Your task to perform on an android device: View the shopping cart on newegg.com. Add "razer blackwidow" to the cart on newegg.com Image 0: 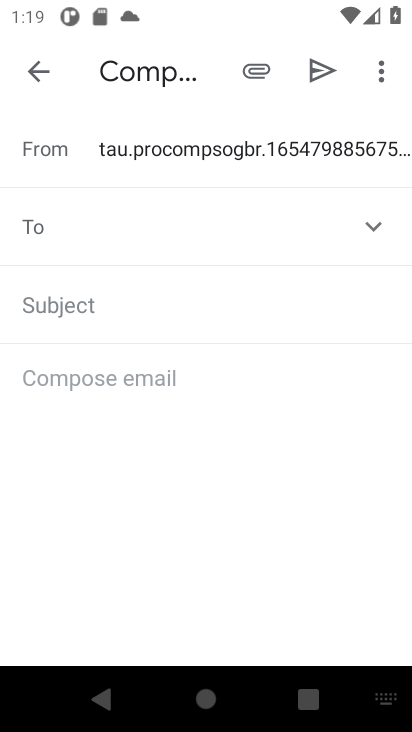
Step 0: press home button
Your task to perform on an android device: View the shopping cart on newegg.com. Add "razer blackwidow" to the cart on newegg.com Image 1: 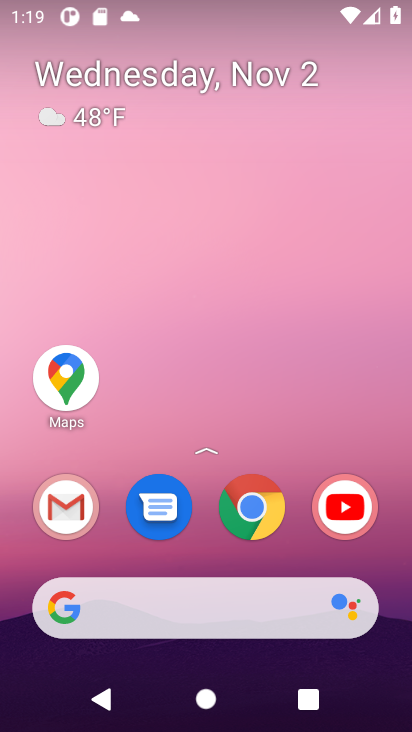
Step 1: click (142, 613)
Your task to perform on an android device: View the shopping cart on newegg.com. Add "razer blackwidow" to the cart on newegg.com Image 2: 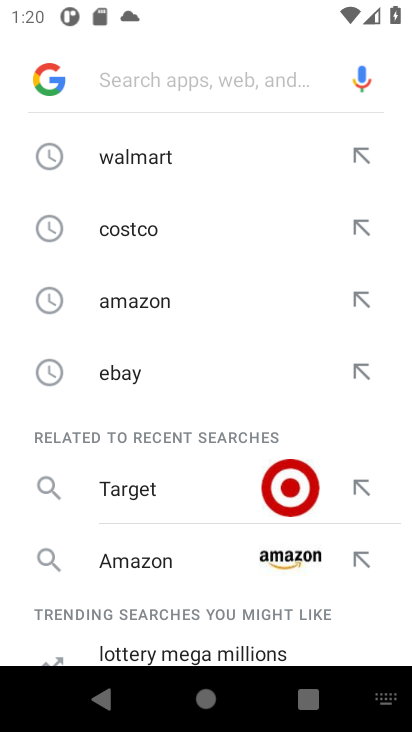
Step 2: type "newegg.com"
Your task to perform on an android device: View the shopping cart on newegg.com. Add "razer blackwidow" to the cart on newegg.com Image 3: 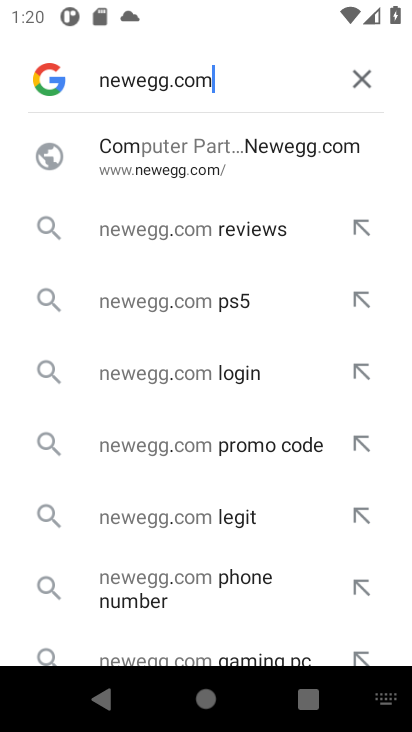
Step 3: click (183, 157)
Your task to perform on an android device: View the shopping cart on newegg.com. Add "razer blackwidow" to the cart on newegg.com Image 4: 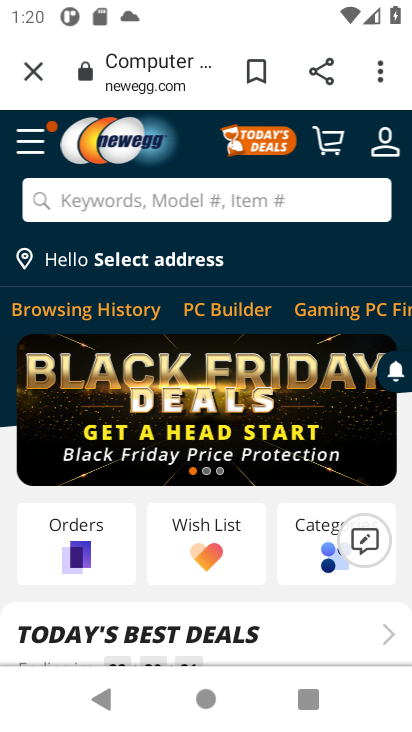
Step 4: click (193, 190)
Your task to perform on an android device: View the shopping cart on newegg.com. Add "razer blackwidow" to the cart on newegg.com Image 5: 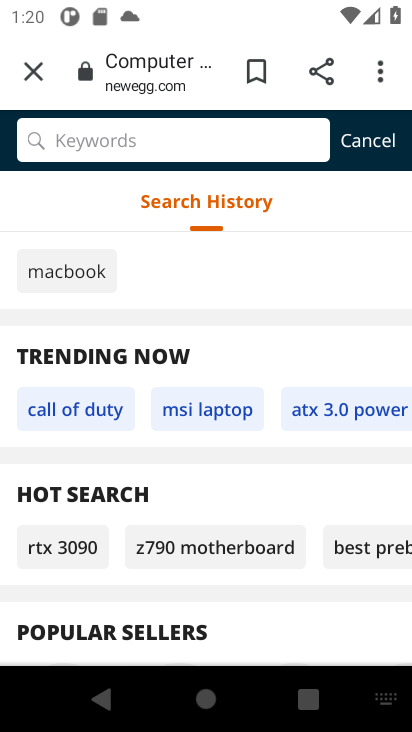
Step 5: type "razer blackwidow"
Your task to perform on an android device: View the shopping cart on newegg.com. Add "razer blackwidow" to the cart on newegg.com Image 6: 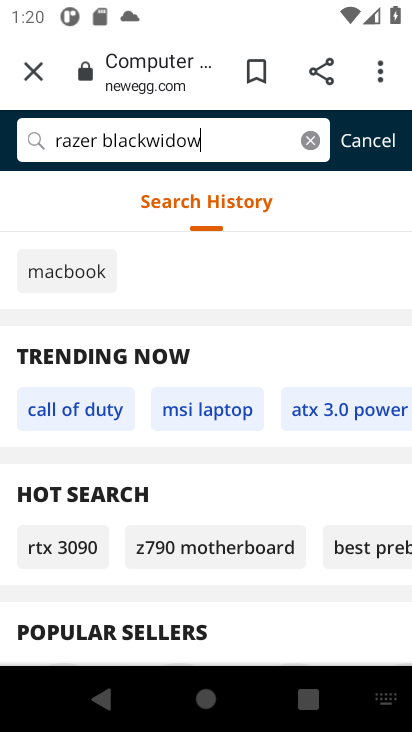
Step 6: type ""
Your task to perform on an android device: View the shopping cart on newegg.com. Add "razer blackwidow" to the cart on newegg.com Image 7: 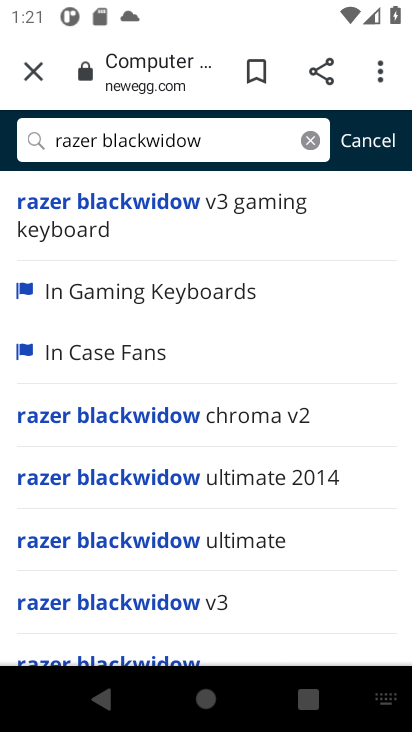
Step 7: click (20, 132)
Your task to perform on an android device: View the shopping cart on newegg.com. Add "razer blackwidow" to the cart on newegg.com Image 8: 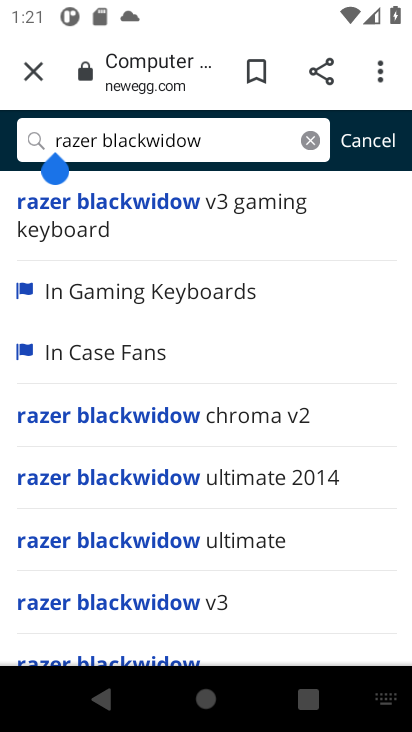
Step 8: drag from (234, 573) to (177, 272)
Your task to perform on an android device: View the shopping cart on newegg.com. Add "razer blackwidow" to the cart on newegg.com Image 9: 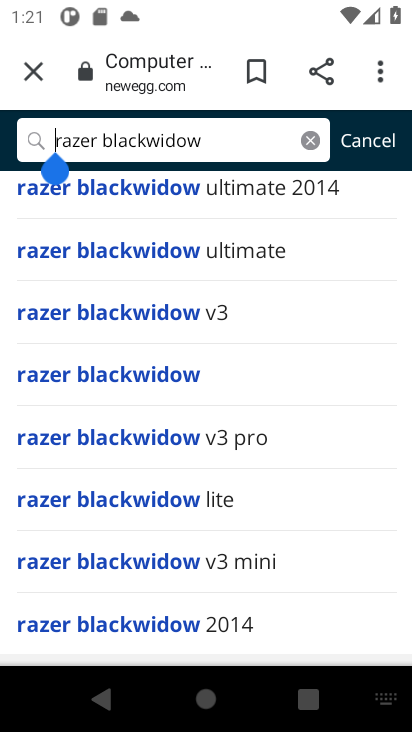
Step 9: drag from (207, 560) to (203, 300)
Your task to perform on an android device: View the shopping cart on newegg.com. Add "razer blackwidow" to the cart on newegg.com Image 10: 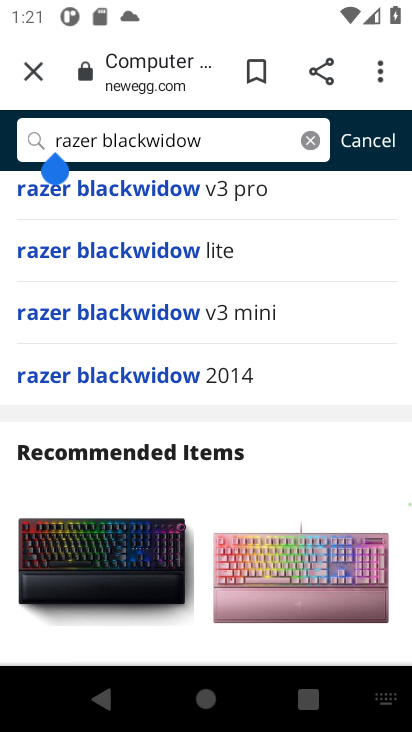
Step 10: drag from (265, 497) to (258, 300)
Your task to perform on an android device: View the shopping cart on newegg.com. Add "razer blackwidow" to the cart on newegg.com Image 11: 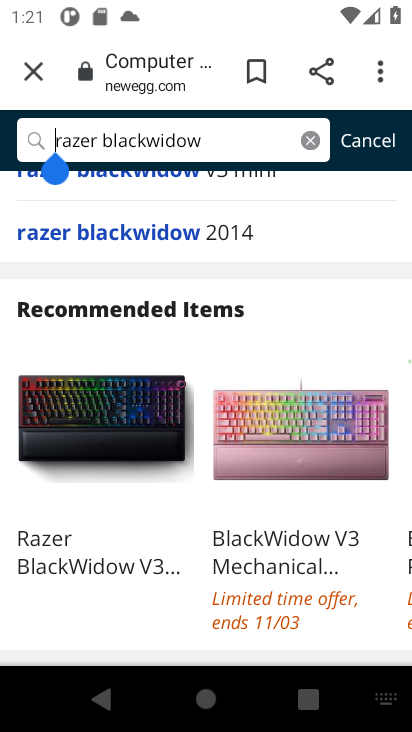
Step 11: drag from (293, 557) to (242, 270)
Your task to perform on an android device: View the shopping cart on newegg.com. Add "razer blackwidow" to the cart on newegg.com Image 12: 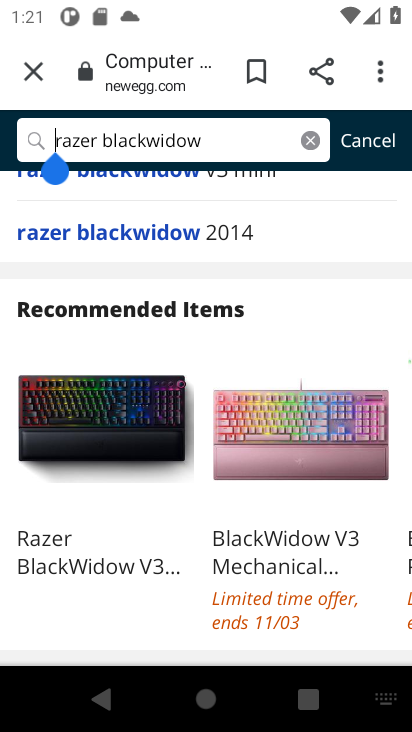
Step 12: drag from (331, 551) to (302, 353)
Your task to perform on an android device: View the shopping cart on newegg.com. Add "razer blackwidow" to the cart on newegg.com Image 13: 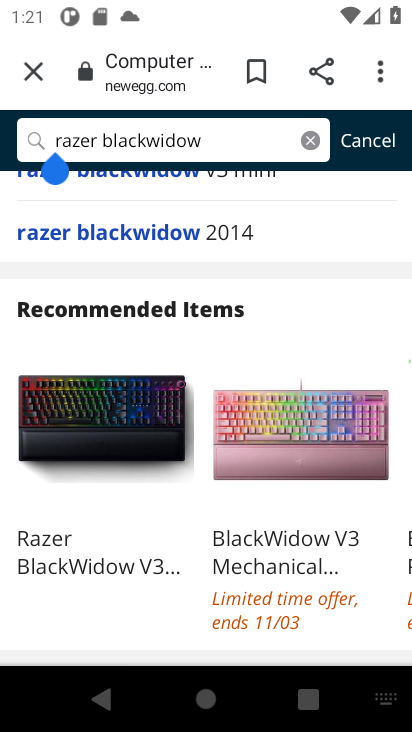
Step 13: drag from (322, 550) to (297, 333)
Your task to perform on an android device: View the shopping cart on newegg.com. Add "razer blackwidow" to the cart on newegg.com Image 14: 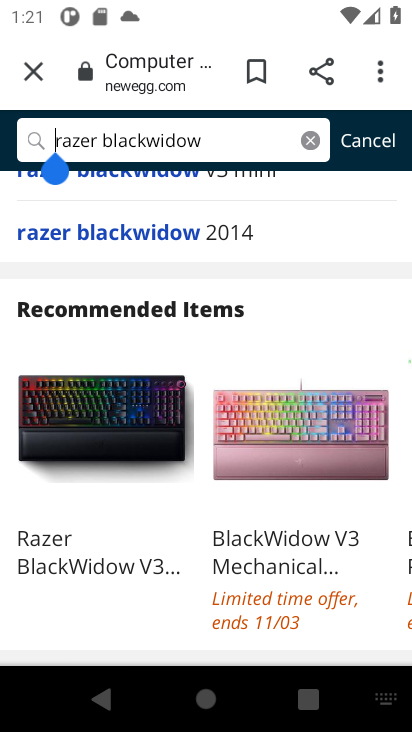
Step 14: drag from (309, 275) to (344, 540)
Your task to perform on an android device: View the shopping cart on newegg.com. Add "razer blackwidow" to the cart on newegg.com Image 15: 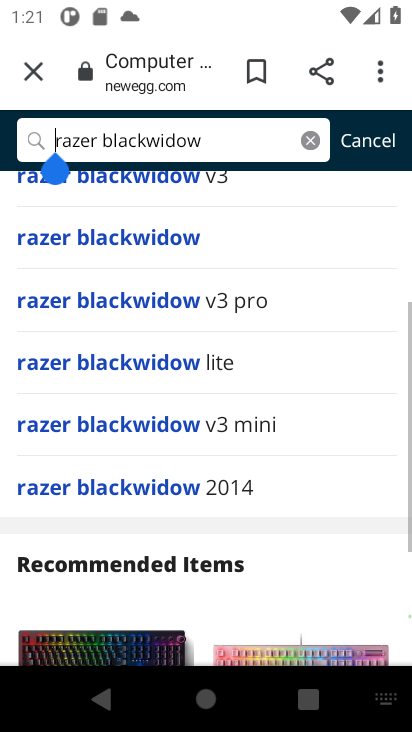
Step 15: drag from (261, 249) to (314, 555)
Your task to perform on an android device: View the shopping cart on newegg.com. Add "razer blackwidow" to the cart on newegg.com Image 16: 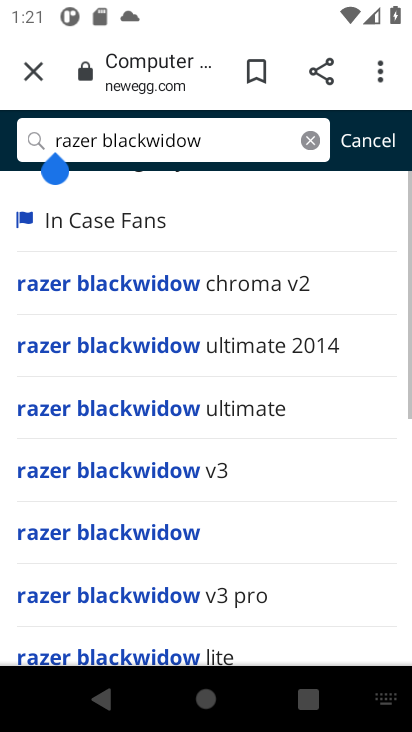
Step 16: drag from (300, 283) to (330, 580)
Your task to perform on an android device: View the shopping cart on newegg.com. Add "razer blackwidow" to the cart on newegg.com Image 17: 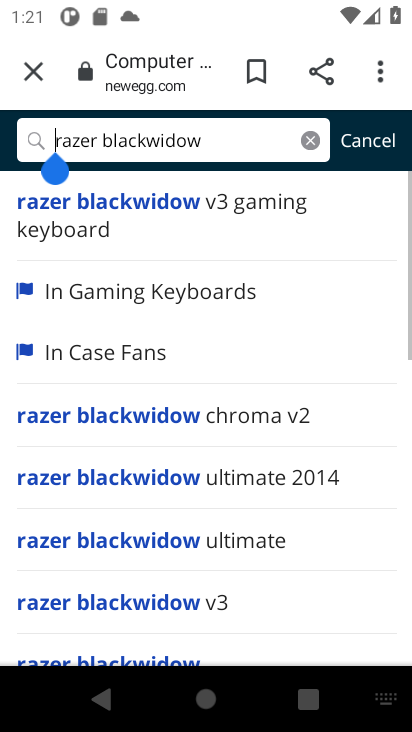
Step 17: drag from (278, 340) to (294, 494)
Your task to perform on an android device: View the shopping cart on newegg.com. Add "razer blackwidow" to the cart on newegg.com Image 18: 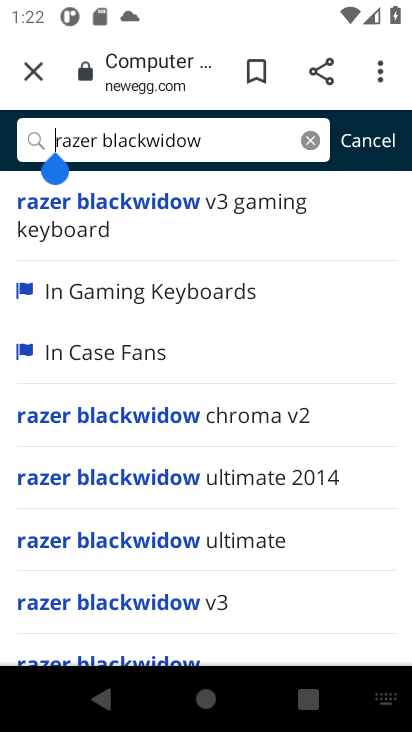
Step 18: click (35, 140)
Your task to perform on an android device: View the shopping cart on newegg.com. Add "razer blackwidow" to the cart on newegg.com Image 19: 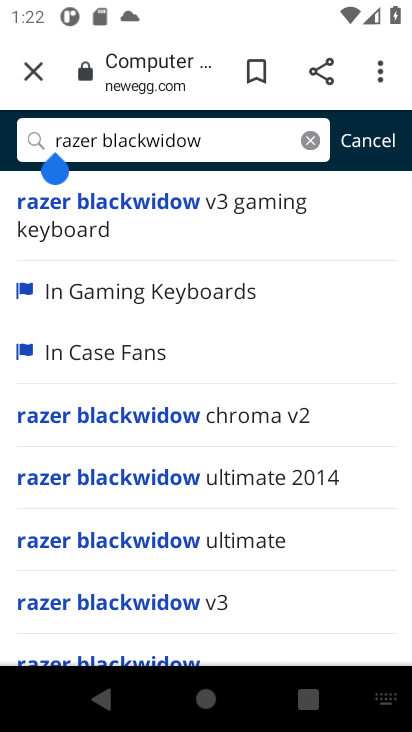
Step 19: click (33, 143)
Your task to perform on an android device: View the shopping cart on newegg.com. Add "razer blackwidow" to the cart on newegg.com Image 20: 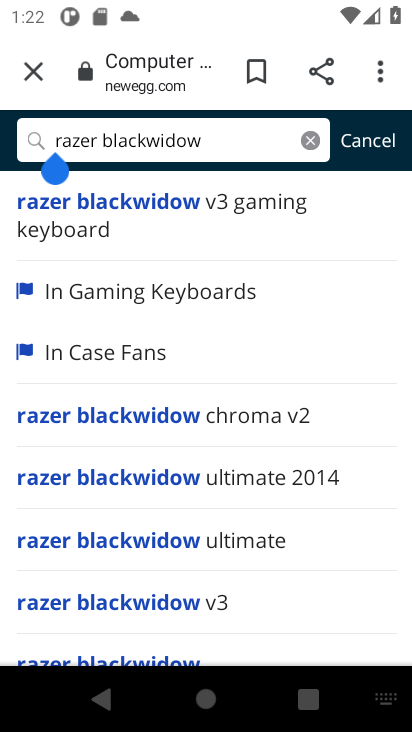
Step 20: click (35, 142)
Your task to perform on an android device: View the shopping cart on newegg.com. Add "razer blackwidow" to the cart on newegg.com Image 21: 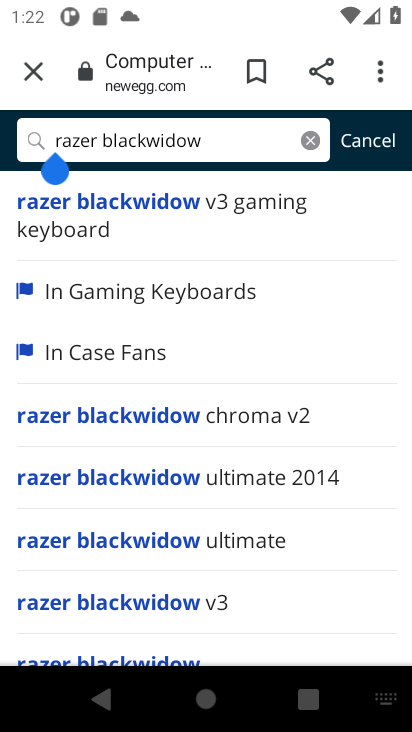
Step 21: click (243, 585)
Your task to perform on an android device: View the shopping cart on newegg.com. Add "razer blackwidow" to the cart on newegg.com Image 22: 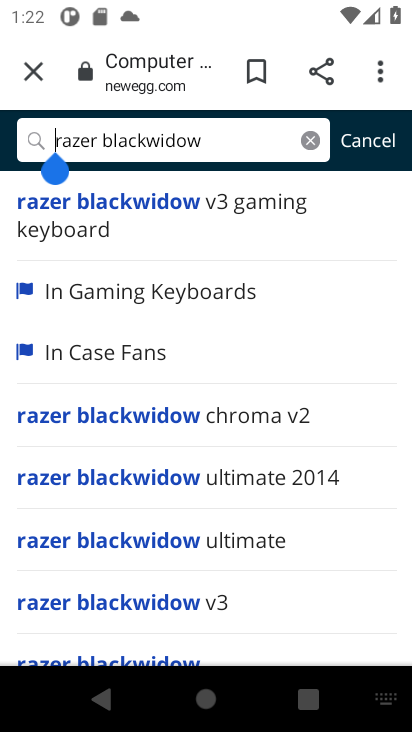
Step 22: click (243, 585)
Your task to perform on an android device: View the shopping cart on newegg.com. Add "razer blackwidow" to the cart on newegg.com Image 23: 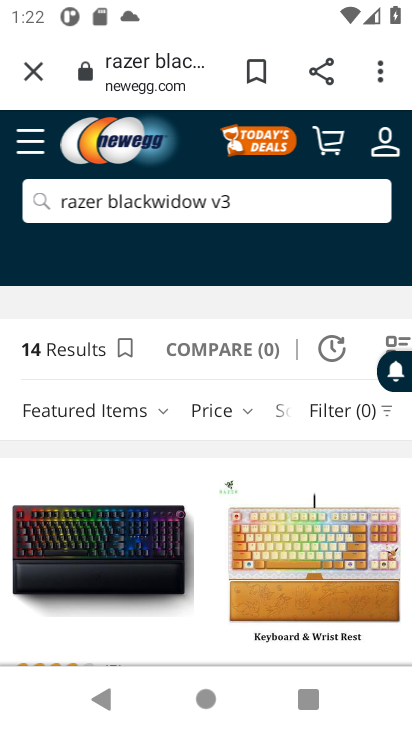
Step 23: click (141, 539)
Your task to perform on an android device: View the shopping cart on newegg.com. Add "razer blackwidow" to the cart on newegg.com Image 24: 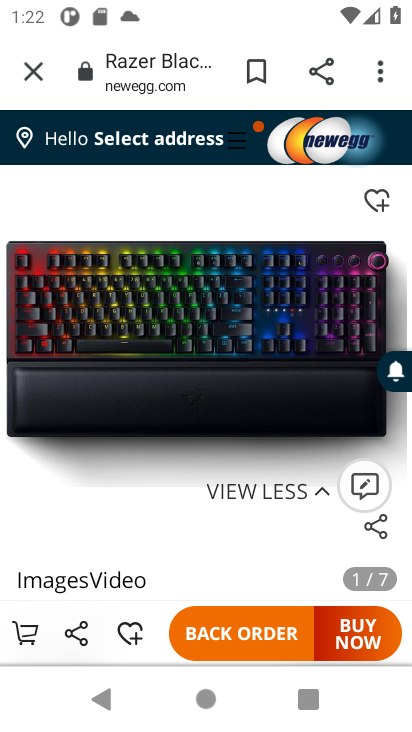
Step 24: drag from (246, 518) to (260, 303)
Your task to perform on an android device: View the shopping cart on newegg.com. Add "razer blackwidow" to the cart on newegg.com Image 25: 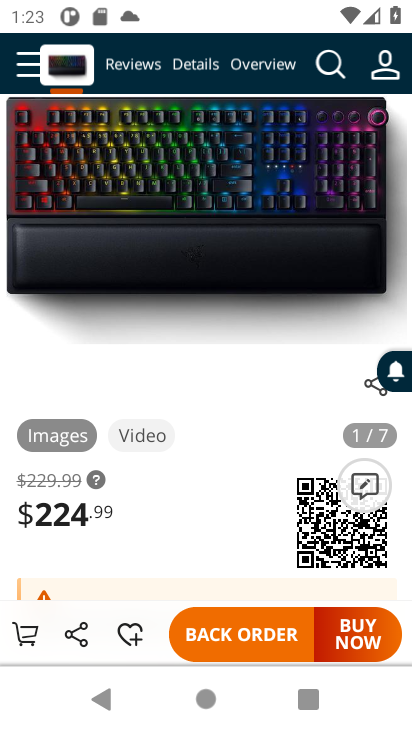
Step 25: click (339, 637)
Your task to perform on an android device: View the shopping cart on newegg.com. Add "razer blackwidow" to the cart on newegg.com Image 26: 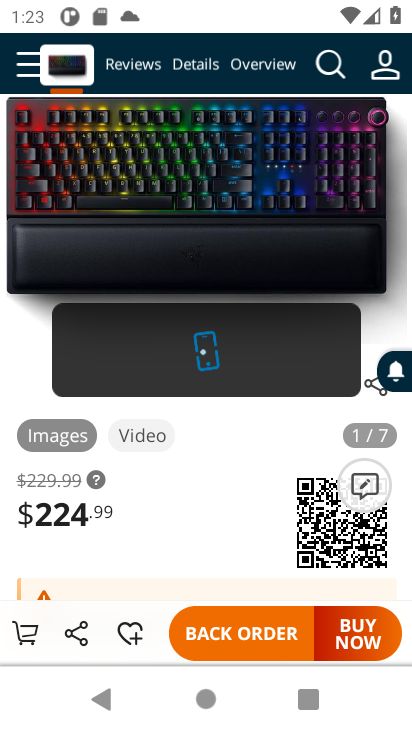
Step 26: task complete